Your task to perform on an android device: Clear the cart on bestbuy.com. Add apple airpods pro to the cart on bestbuy.com Image 0: 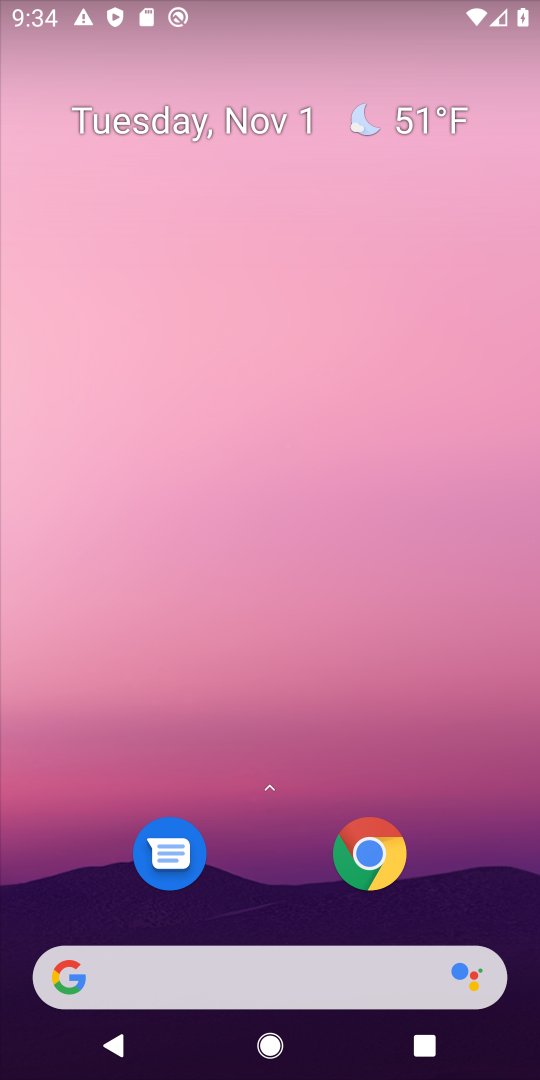
Step 0: click (261, 953)
Your task to perform on an android device: Clear the cart on bestbuy.com. Add apple airpods pro to the cart on bestbuy.com Image 1: 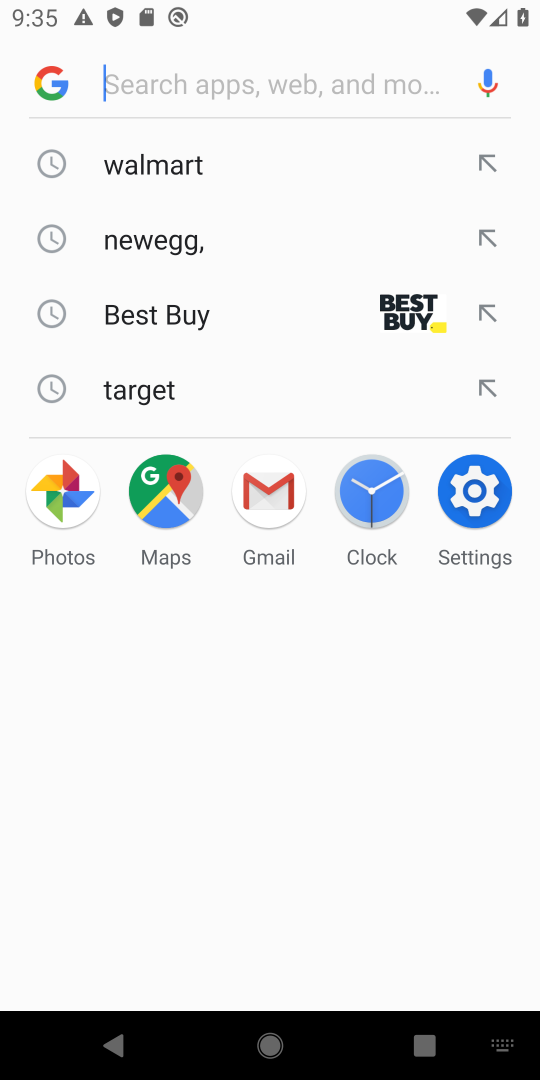
Step 1: click (160, 313)
Your task to perform on an android device: Clear the cart on bestbuy.com. Add apple airpods pro to the cart on bestbuy.com Image 2: 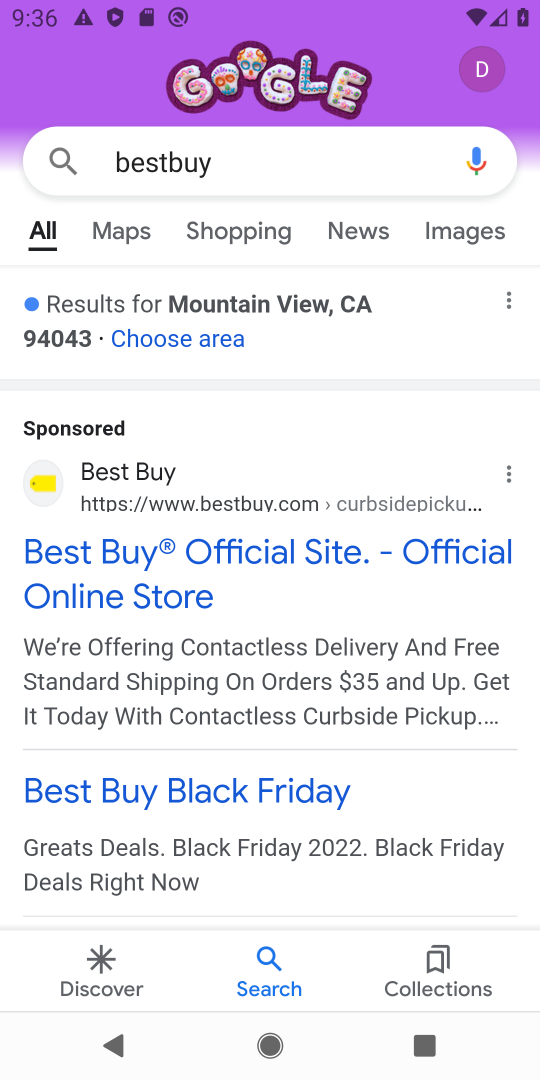
Step 2: click (207, 572)
Your task to perform on an android device: Clear the cart on bestbuy.com. Add apple airpods pro to the cart on bestbuy.com Image 3: 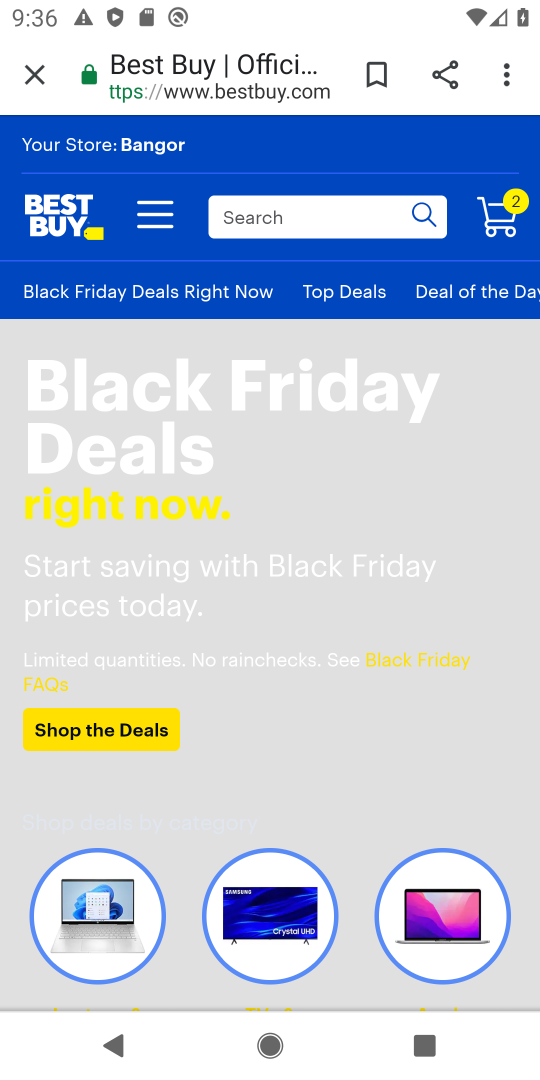
Step 3: click (291, 205)
Your task to perform on an android device: Clear the cart on bestbuy.com. Add apple airpods pro to the cart on bestbuy.com Image 4: 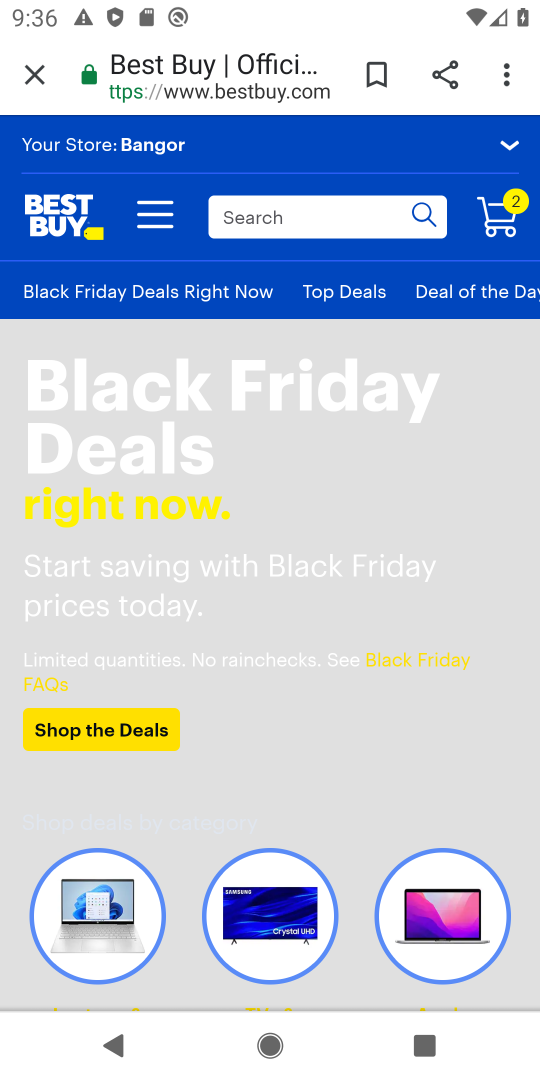
Step 4: type "apple airpods'"
Your task to perform on an android device: Clear the cart on bestbuy.com. Add apple airpods pro to the cart on bestbuy.com Image 5: 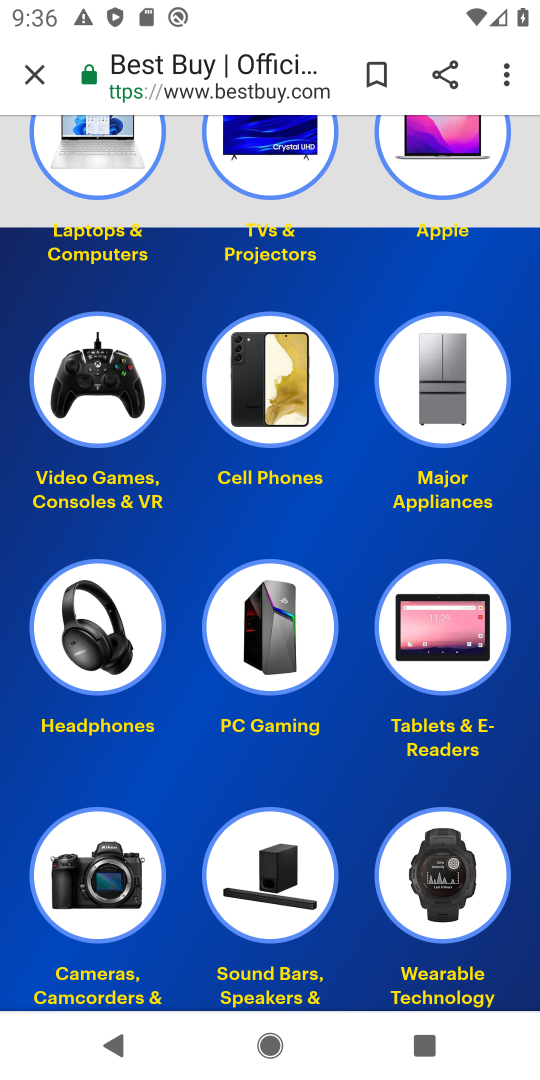
Step 5: task complete